Your task to perform on an android device: set the timer Image 0: 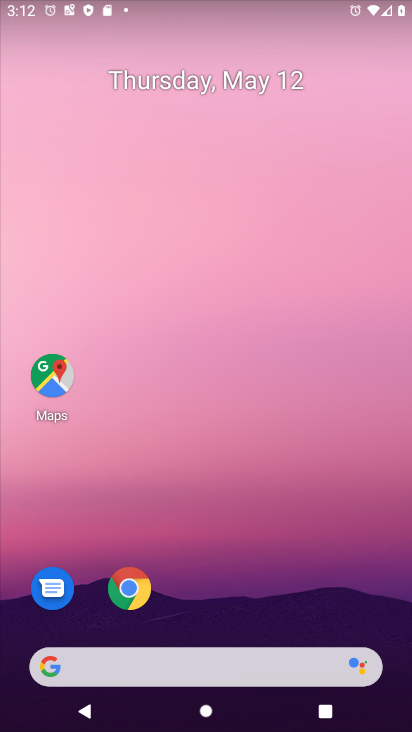
Step 0: drag from (217, 571) to (177, 15)
Your task to perform on an android device: set the timer Image 1: 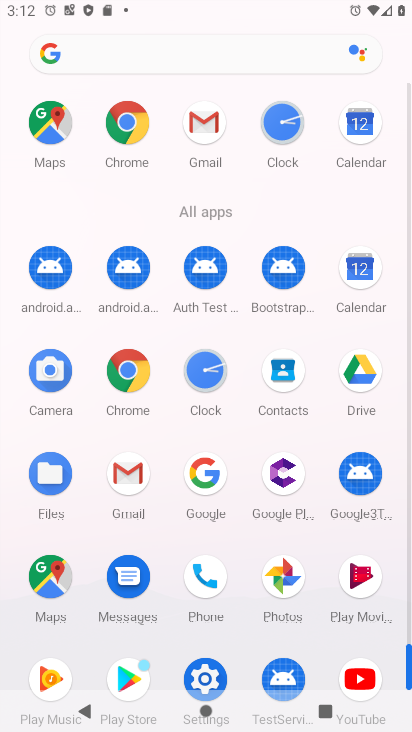
Step 1: drag from (11, 485) to (1, 250)
Your task to perform on an android device: set the timer Image 2: 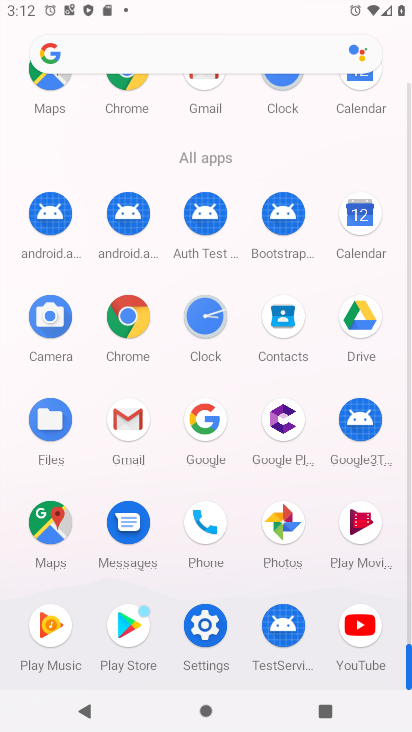
Step 2: drag from (20, 188) to (0, 407)
Your task to perform on an android device: set the timer Image 3: 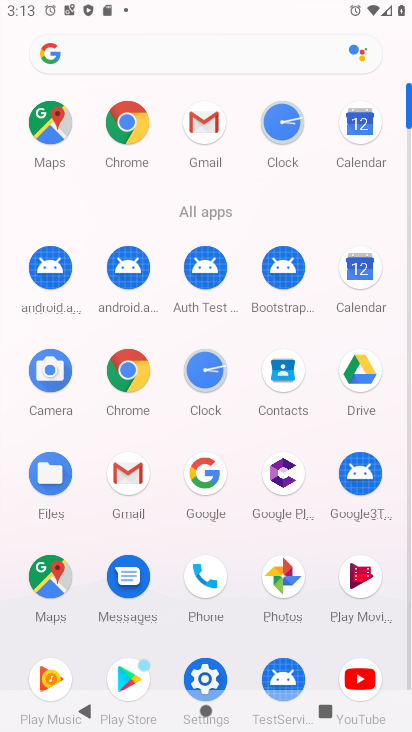
Step 3: click (273, 123)
Your task to perform on an android device: set the timer Image 4: 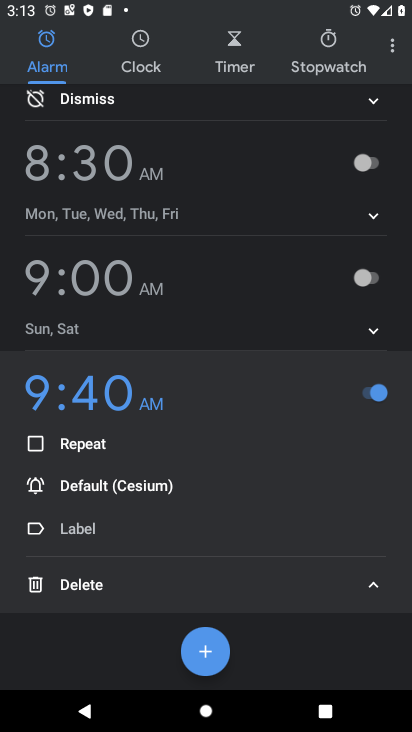
Step 4: click (151, 45)
Your task to perform on an android device: set the timer Image 5: 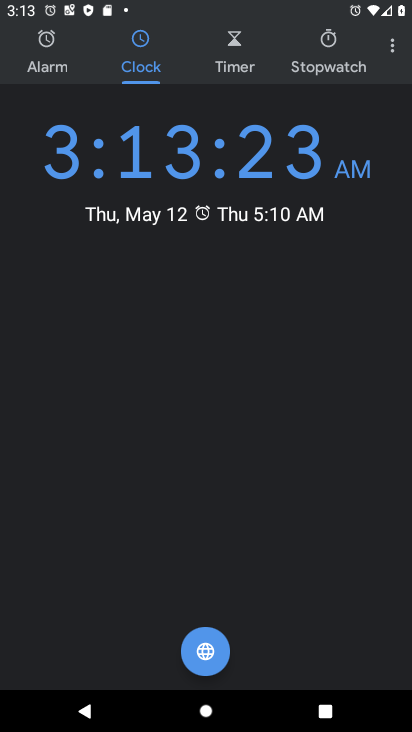
Step 5: click (247, 35)
Your task to perform on an android device: set the timer Image 6: 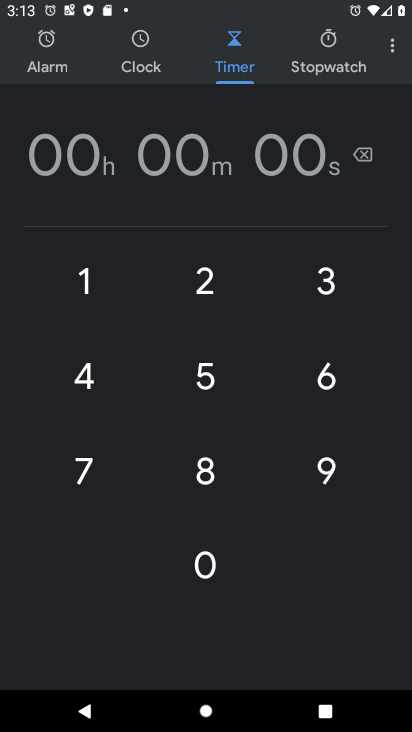
Step 6: click (196, 286)
Your task to perform on an android device: set the timer Image 7: 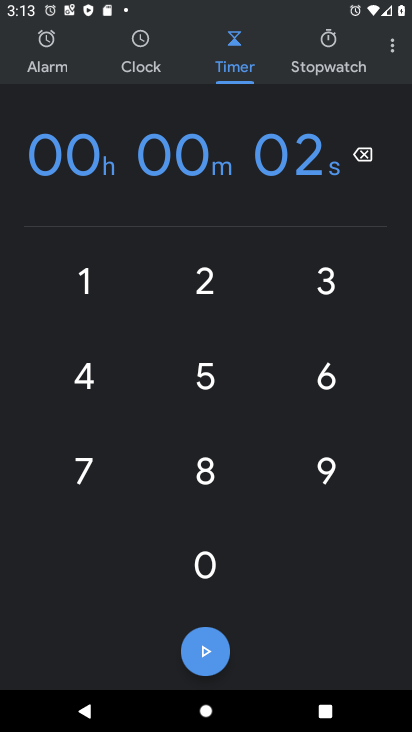
Step 7: click (89, 363)
Your task to perform on an android device: set the timer Image 8: 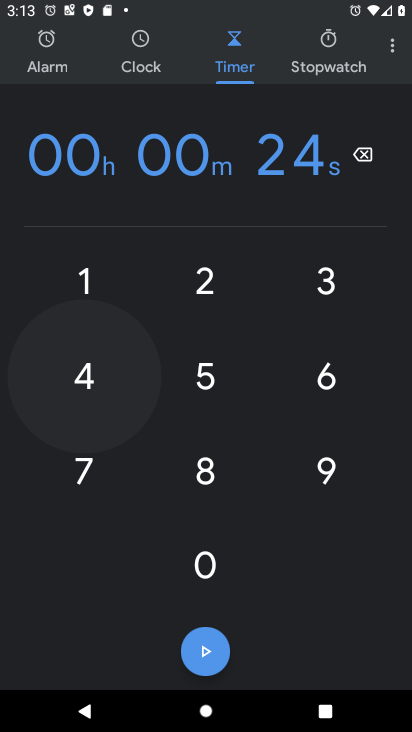
Step 8: click (199, 368)
Your task to perform on an android device: set the timer Image 9: 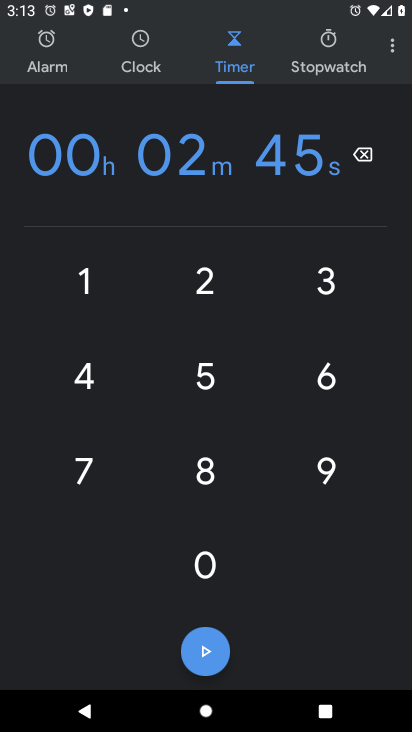
Step 9: click (306, 368)
Your task to perform on an android device: set the timer Image 10: 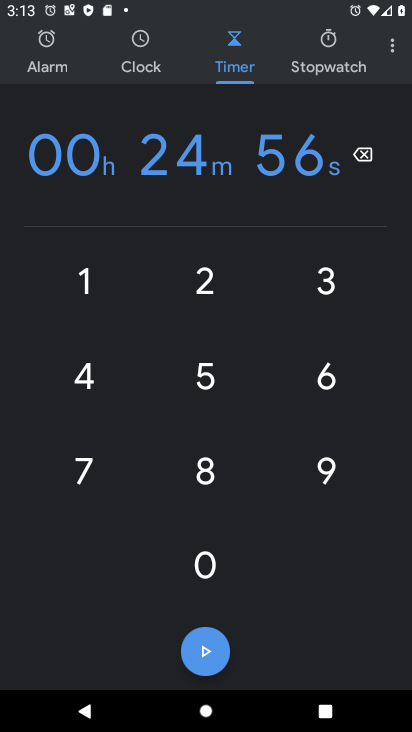
Step 10: click (320, 469)
Your task to perform on an android device: set the timer Image 11: 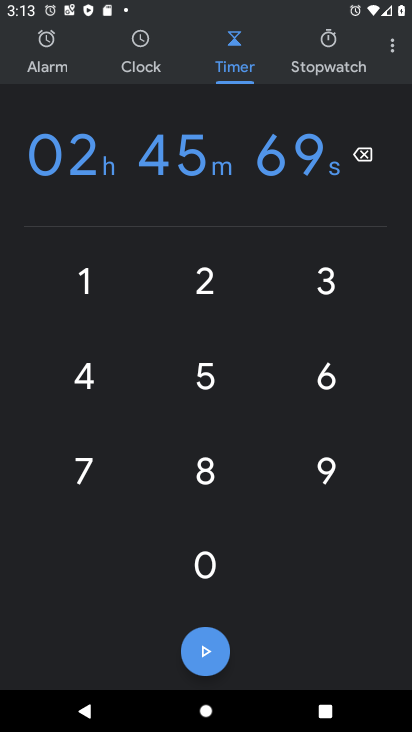
Step 11: click (197, 648)
Your task to perform on an android device: set the timer Image 12: 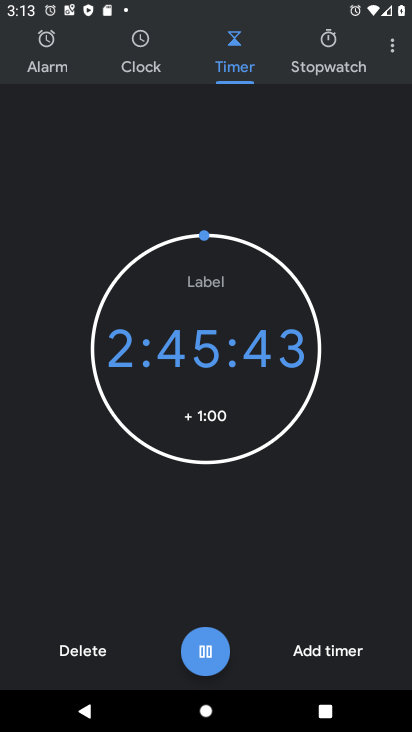
Step 12: task complete